Your task to perform on an android device: Open Maps and search for coffee Image 0: 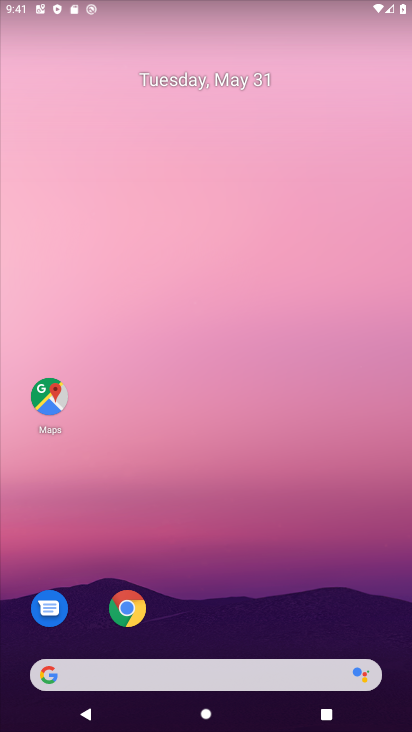
Step 0: click (64, 425)
Your task to perform on an android device: Open Maps and search for coffee Image 1: 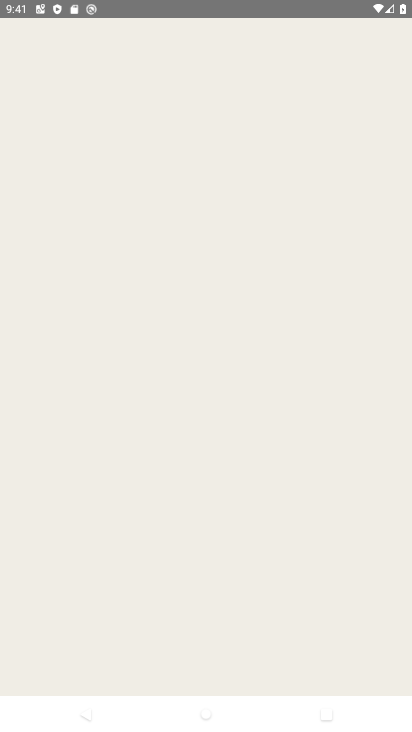
Step 1: task complete